Your task to perform on an android device: check out phone information Image 0: 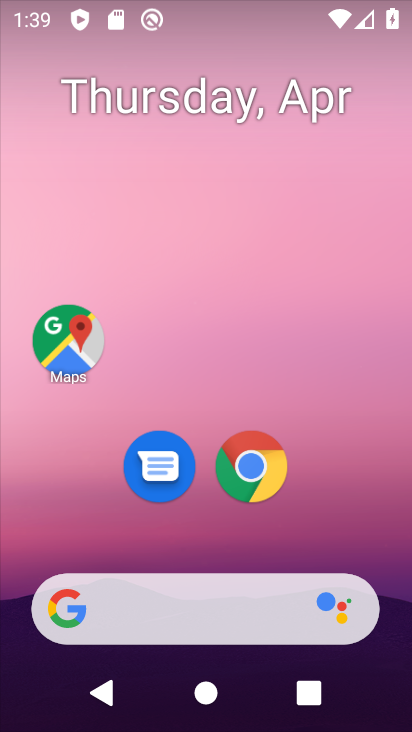
Step 0: drag from (346, 444) to (232, 5)
Your task to perform on an android device: check out phone information Image 1: 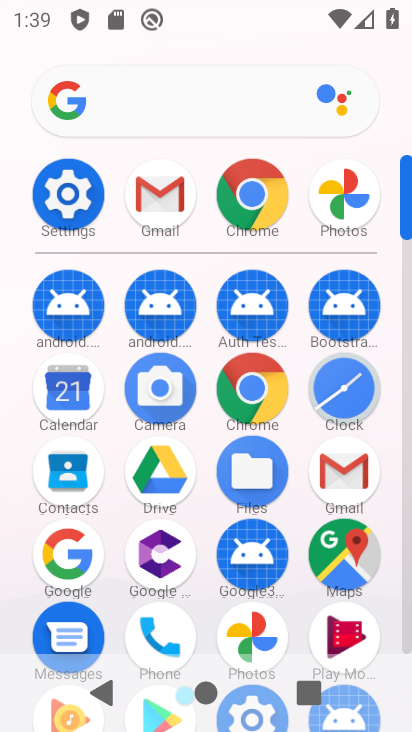
Step 1: click (65, 193)
Your task to perform on an android device: check out phone information Image 2: 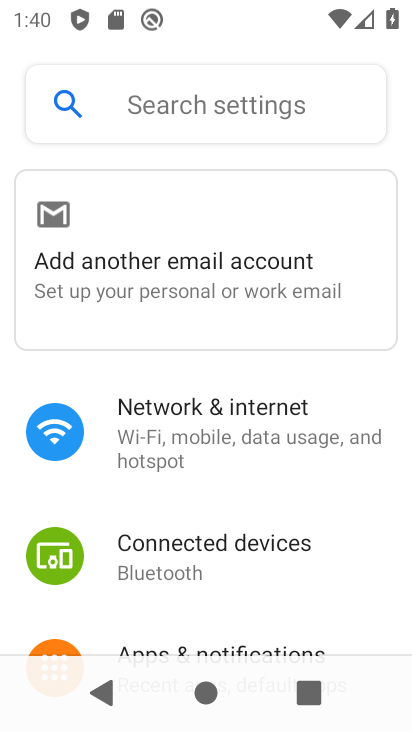
Step 2: drag from (299, 591) to (301, 152)
Your task to perform on an android device: check out phone information Image 3: 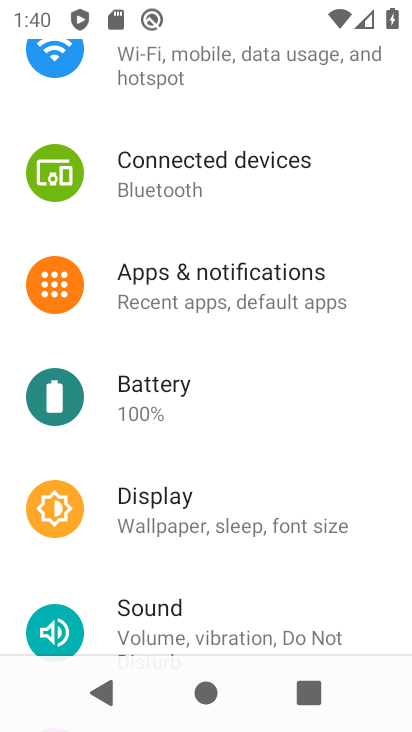
Step 3: drag from (299, 460) to (278, 165)
Your task to perform on an android device: check out phone information Image 4: 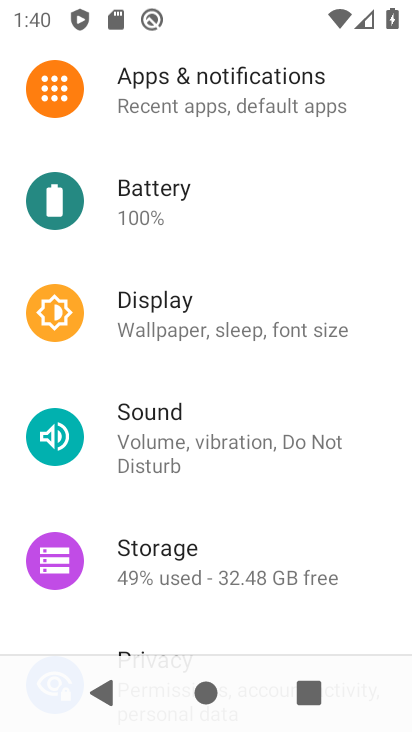
Step 4: drag from (234, 351) to (236, 125)
Your task to perform on an android device: check out phone information Image 5: 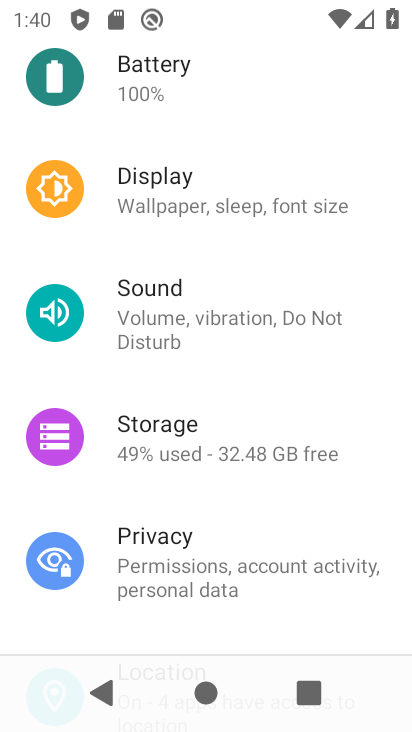
Step 5: drag from (243, 459) to (237, 108)
Your task to perform on an android device: check out phone information Image 6: 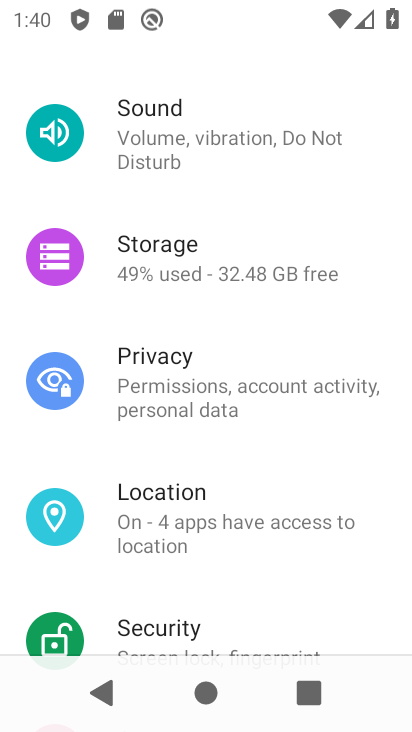
Step 6: drag from (230, 489) to (234, 175)
Your task to perform on an android device: check out phone information Image 7: 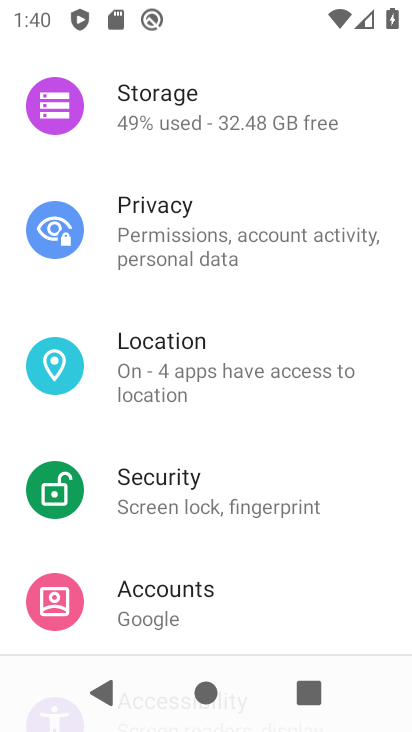
Step 7: drag from (244, 531) to (244, 134)
Your task to perform on an android device: check out phone information Image 8: 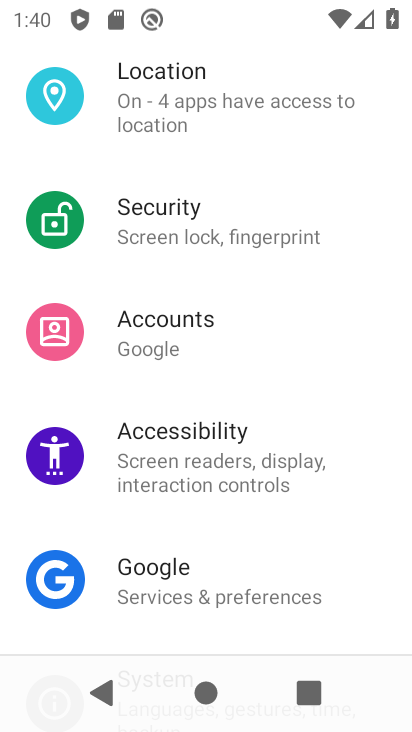
Step 8: drag from (255, 459) to (261, 154)
Your task to perform on an android device: check out phone information Image 9: 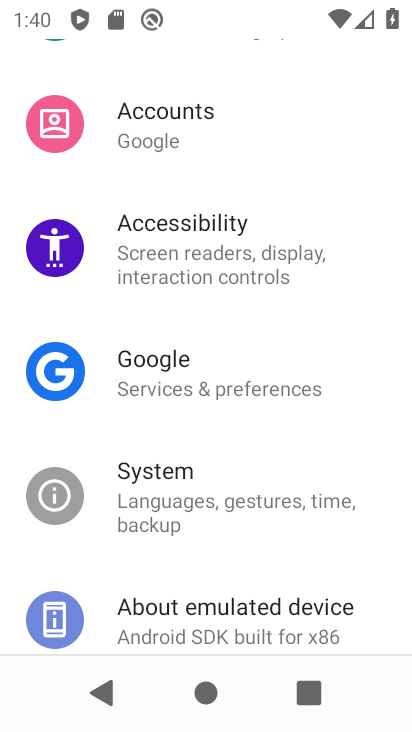
Step 9: drag from (265, 372) to (269, 260)
Your task to perform on an android device: check out phone information Image 10: 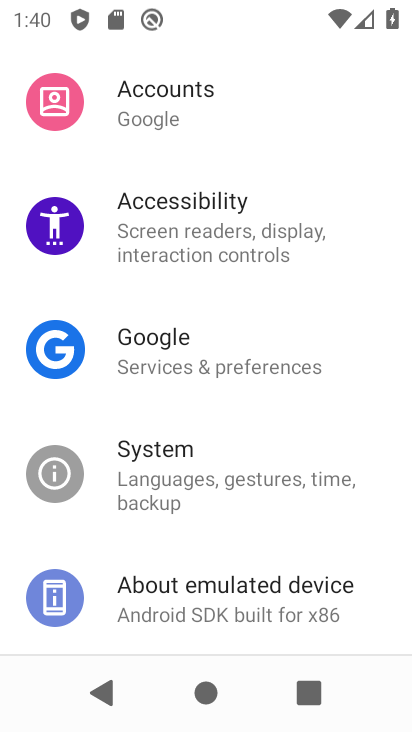
Step 10: drag from (265, 555) to (267, 202)
Your task to perform on an android device: check out phone information Image 11: 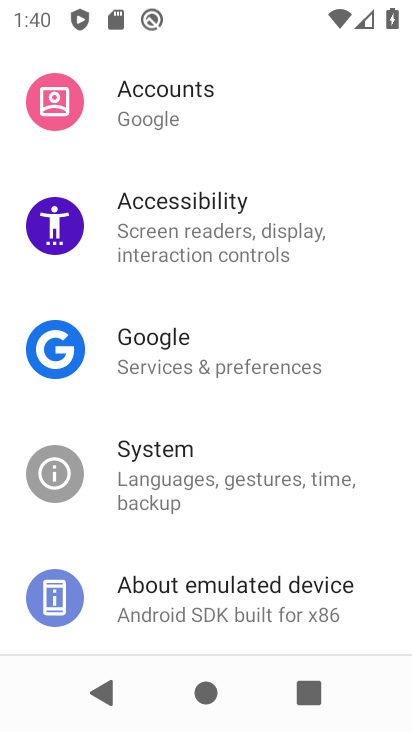
Step 11: click (237, 590)
Your task to perform on an android device: check out phone information Image 12: 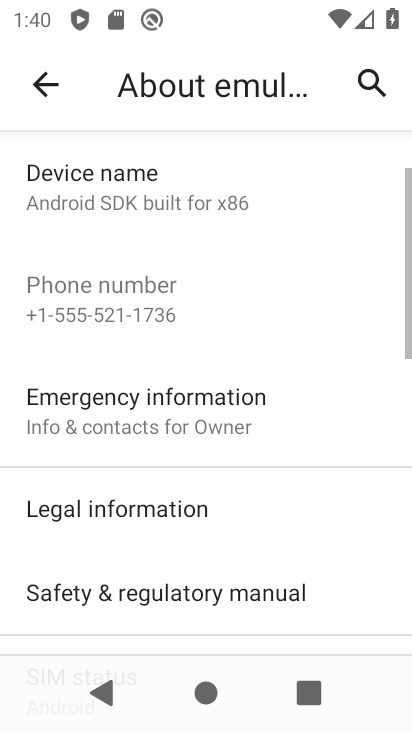
Step 12: task complete